Your task to perform on an android device: set an alarm Image 0: 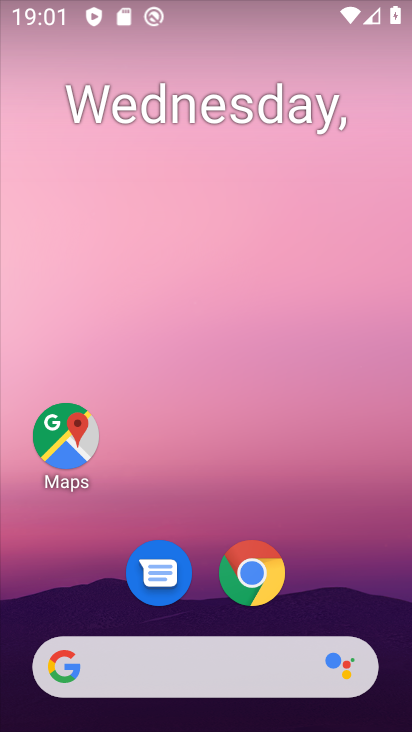
Step 0: drag from (384, 604) to (353, 148)
Your task to perform on an android device: set an alarm Image 1: 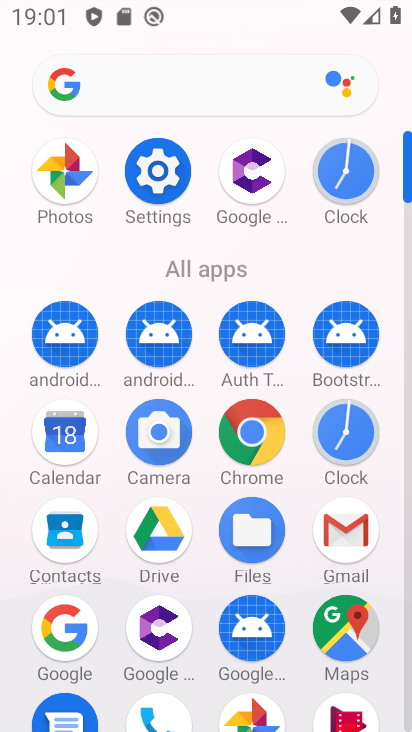
Step 1: click (330, 437)
Your task to perform on an android device: set an alarm Image 2: 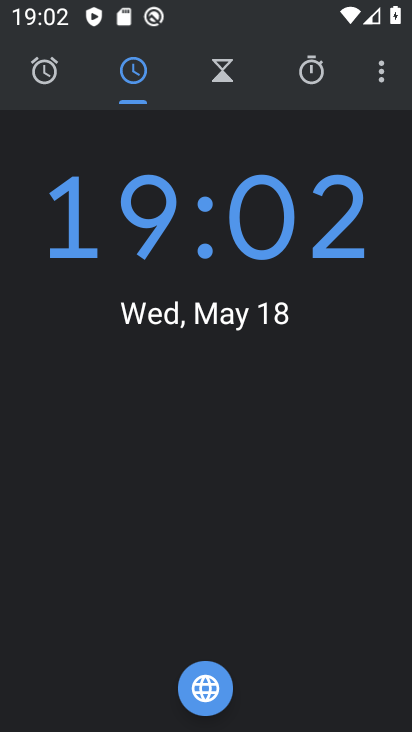
Step 2: click (52, 65)
Your task to perform on an android device: set an alarm Image 3: 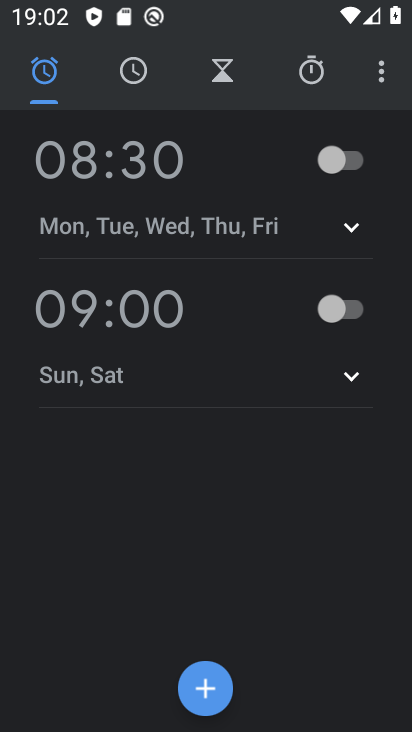
Step 3: click (348, 320)
Your task to perform on an android device: set an alarm Image 4: 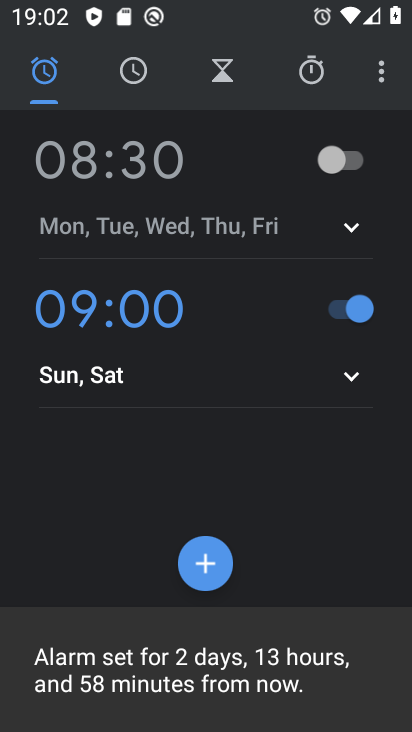
Step 4: task complete